Your task to perform on an android device: Go to Wikipedia Image 0: 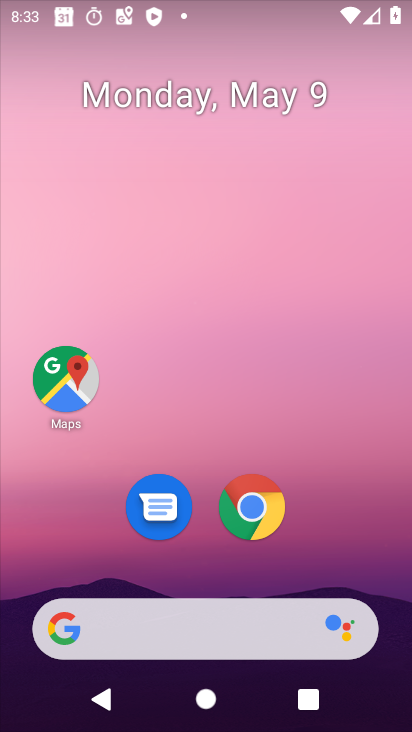
Step 0: drag from (261, 684) to (289, 144)
Your task to perform on an android device: Go to Wikipedia Image 1: 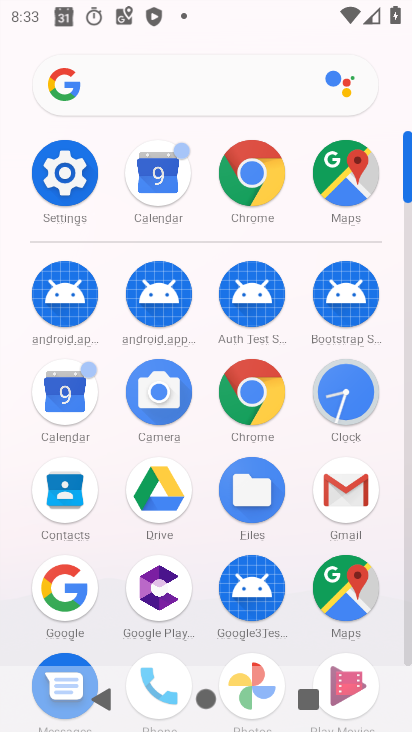
Step 1: click (269, 168)
Your task to perform on an android device: Go to Wikipedia Image 2: 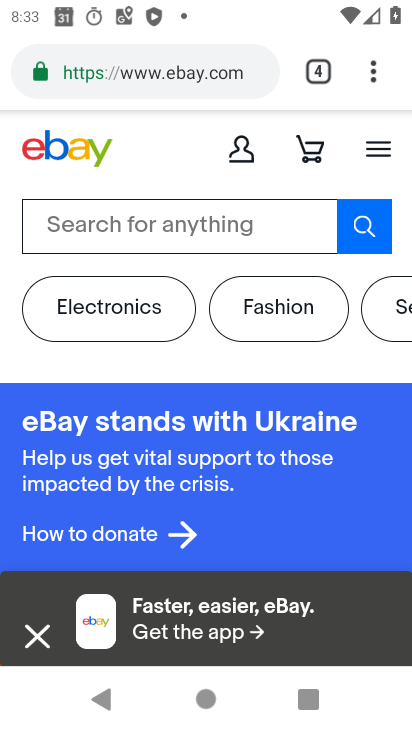
Step 2: click (315, 72)
Your task to perform on an android device: Go to Wikipedia Image 3: 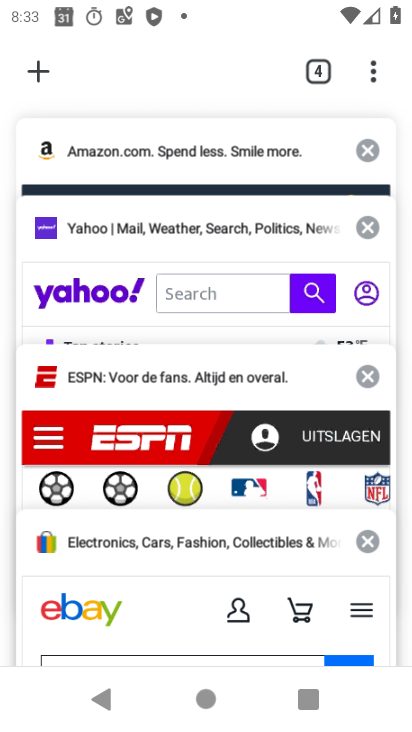
Step 3: click (49, 74)
Your task to perform on an android device: Go to Wikipedia Image 4: 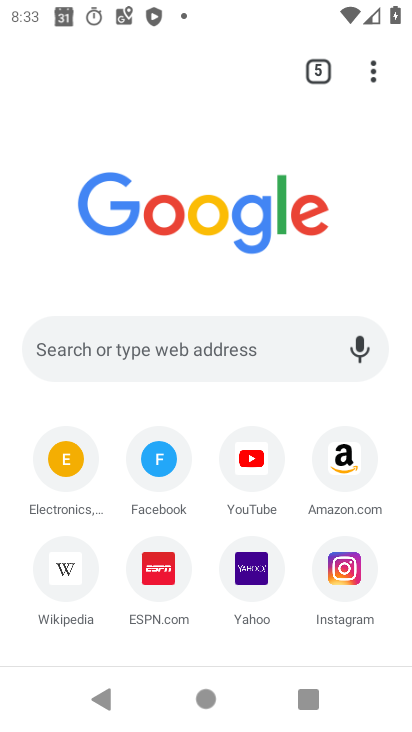
Step 4: click (69, 577)
Your task to perform on an android device: Go to Wikipedia Image 5: 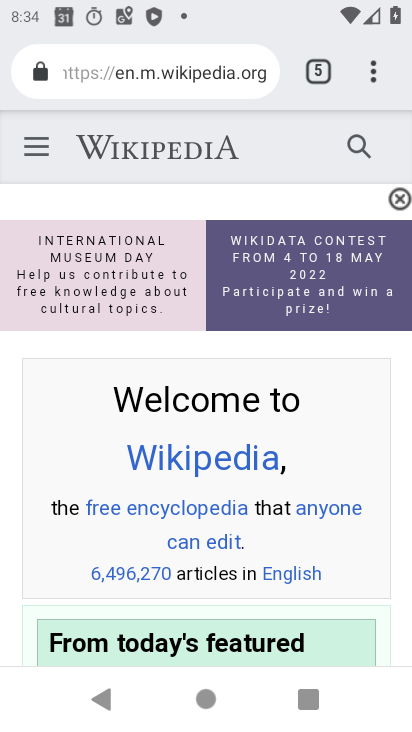
Step 5: task complete